Your task to perform on an android device: Go to calendar. Show me events next week Image 0: 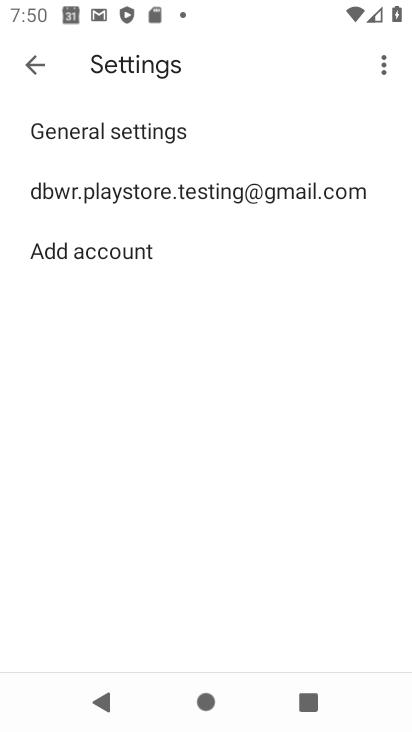
Step 0: press home button
Your task to perform on an android device: Go to calendar. Show me events next week Image 1: 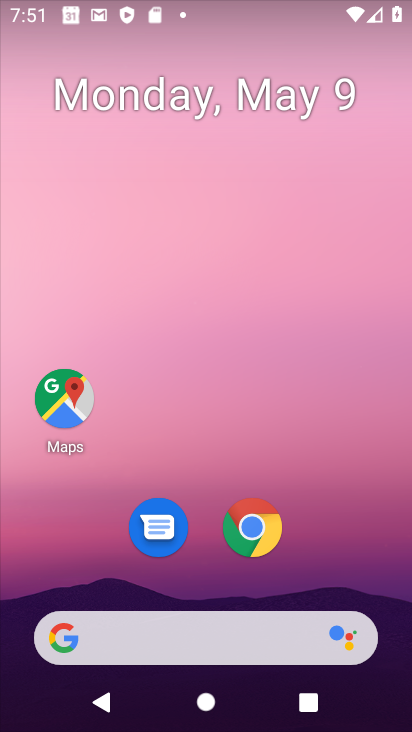
Step 1: drag from (282, 660) to (304, 296)
Your task to perform on an android device: Go to calendar. Show me events next week Image 2: 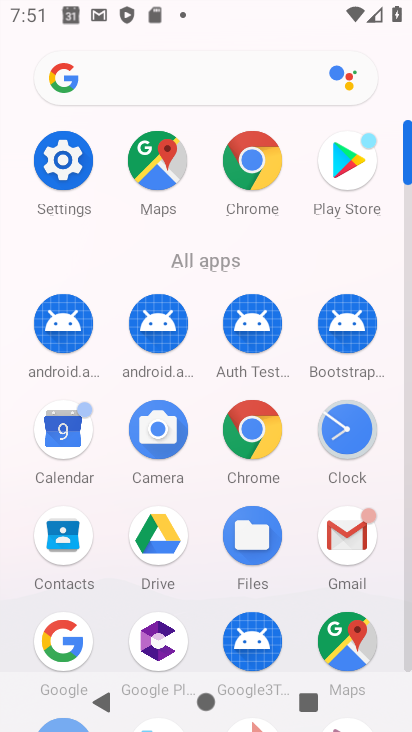
Step 2: click (59, 426)
Your task to perform on an android device: Go to calendar. Show me events next week Image 3: 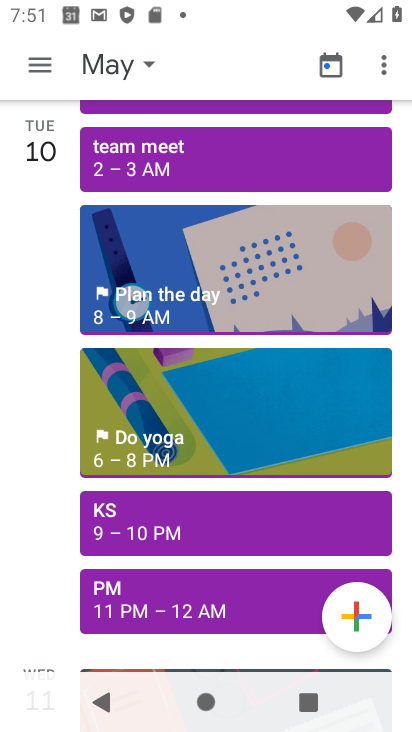
Step 3: click (138, 69)
Your task to perform on an android device: Go to calendar. Show me events next week Image 4: 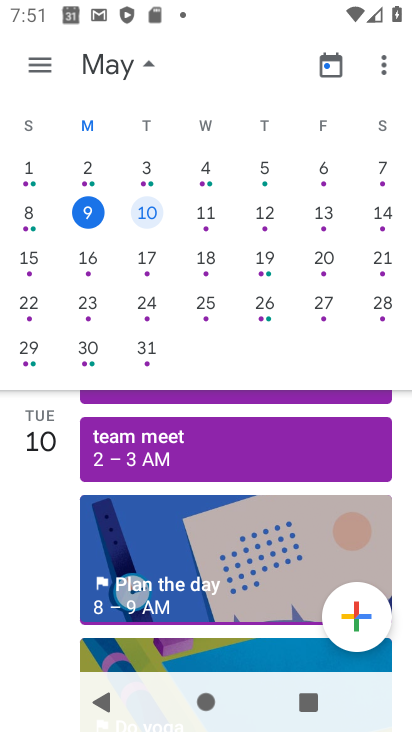
Step 4: click (29, 271)
Your task to perform on an android device: Go to calendar. Show me events next week Image 5: 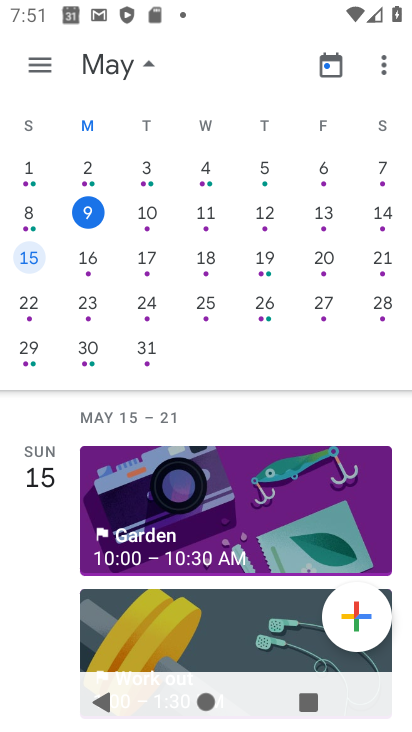
Step 5: task complete